Your task to perform on an android device: Is it going to rain tomorrow? Image 0: 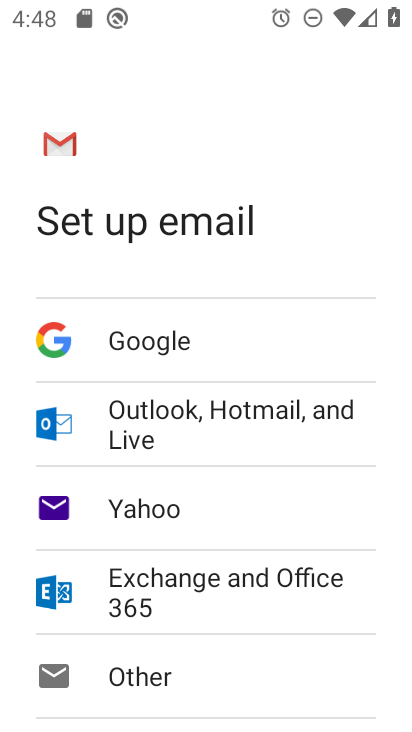
Step 0: press home button
Your task to perform on an android device: Is it going to rain tomorrow? Image 1: 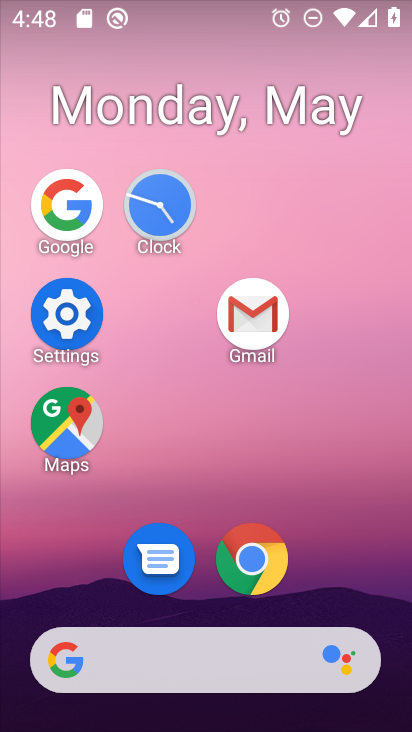
Step 1: drag from (343, 561) to (391, 172)
Your task to perform on an android device: Is it going to rain tomorrow? Image 2: 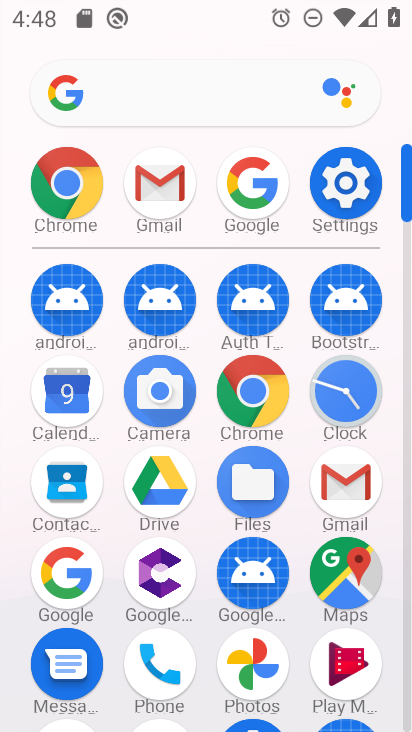
Step 2: drag from (260, 183) to (133, 210)
Your task to perform on an android device: Is it going to rain tomorrow? Image 3: 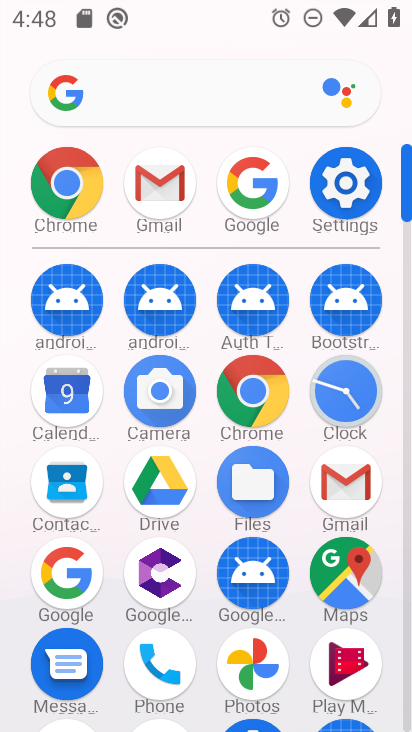
Step 3: click (242, 202)
Your task to perform on an android device: Is it going to rain tomorrow? Image 4: 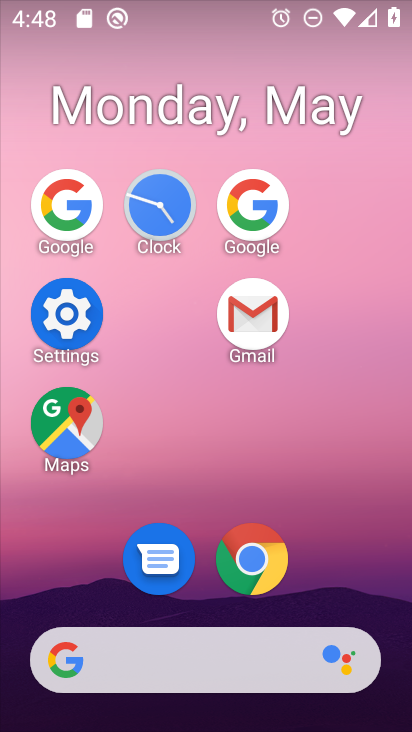
Step 4: click (262, 214)
Your task to perform on an android device: Is it going to rain tomorrow? Image 5: 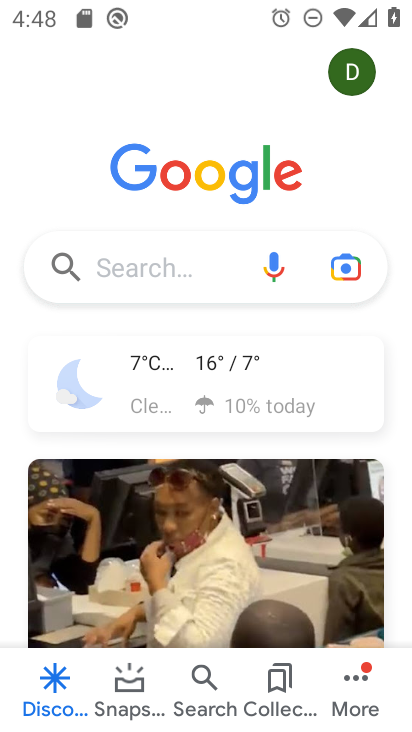
Step 5: click (189, 384)
Your task to perform on an android device: Is it going to rain tomorrow? Image 6: 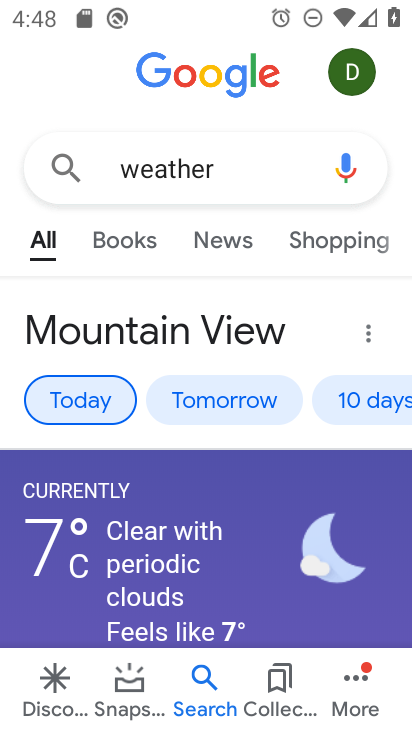
Step 6: task complete